Your task to perform on an android device: Search for seafood restaurants on Google Maps Image 0: 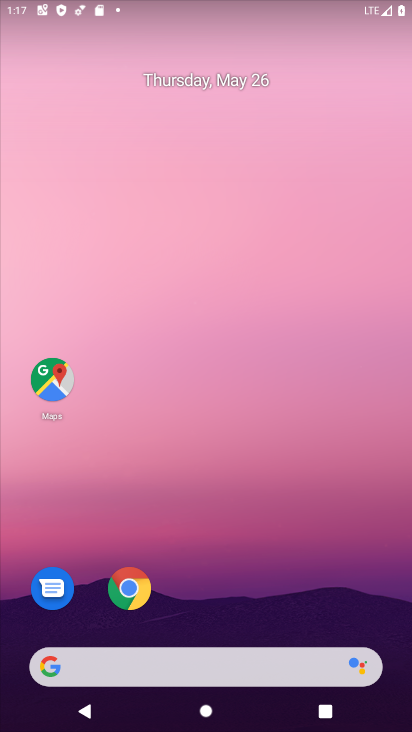
Step 0: click (42, 382)
Your task to perform on an android device: Search for seafood restaurants on Google Maps Image 1: 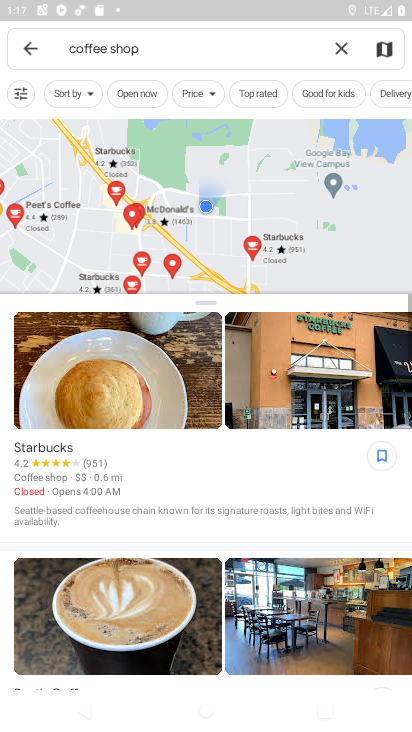
Step 1: click (345, 48)
Your task to perform on an android device: Search for seafood restaurants on Google Maps Image 2: 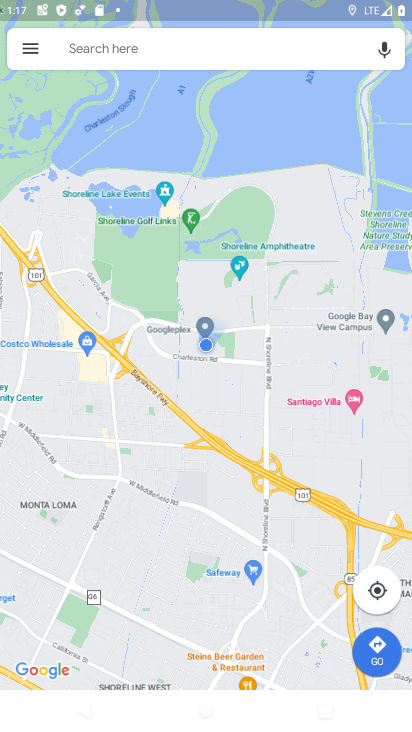
Step 2: click (111, 42)
Your task to perform on an android device: Search for seafood restaurants on Google Maps Image 3: 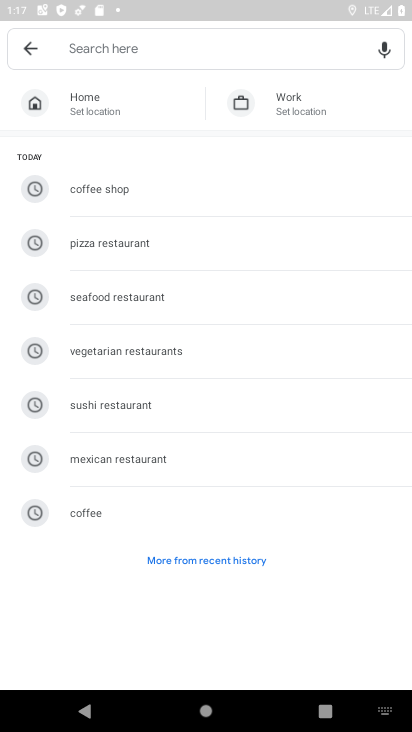
Step 3: type "seafood restaurants"
Your task to perform on an android device: Search for seafood restaurants on Google Maps Image 4: 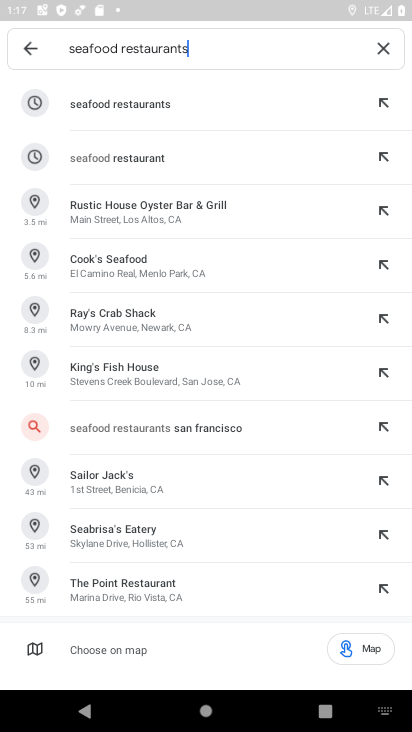
Step 4: click (91, 104)
Your task to perform on an android device: Search for seafood restaurants on Google Maps Image 5: 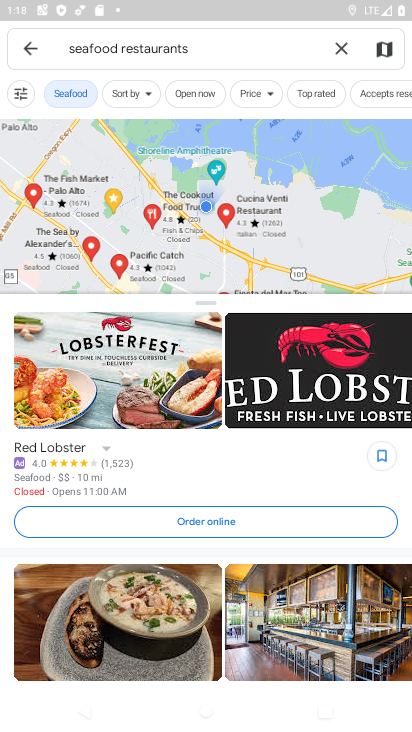
Step 5: task complete